Your task to perform on an android device: Open settings Image 0: 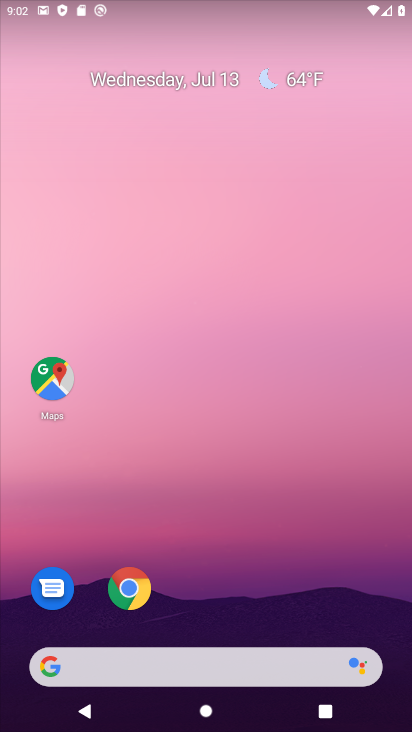
Step 0: drag from (254, 630) to (240, 47)
Your task to perform on an android device: Open settings Image 1: 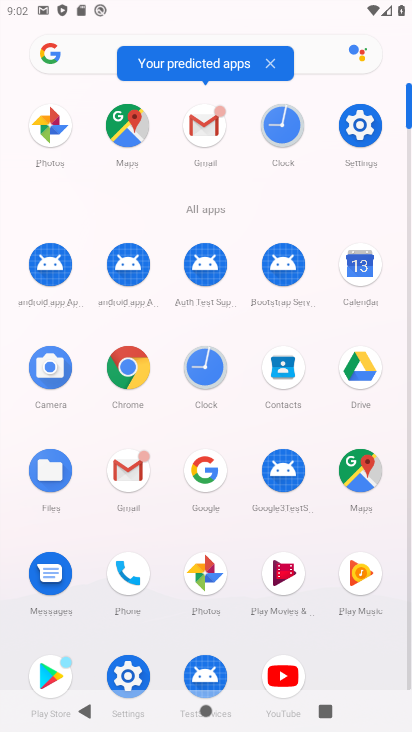
Step 1: click (361, 132)
Your task to perform on an android device: Open settings Image 2: 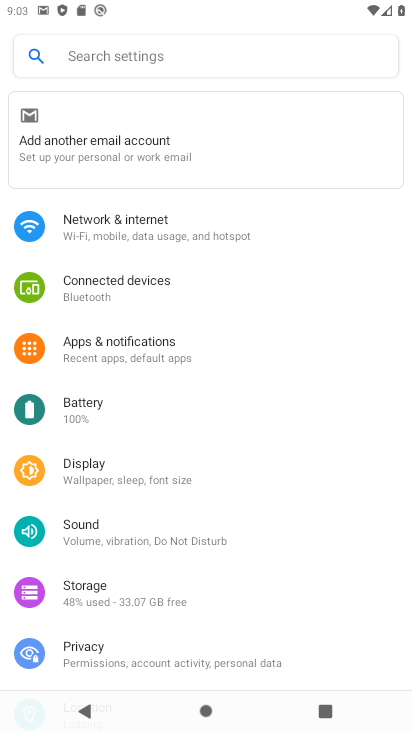
Step 2: task complete